Your task to perform on an android device: allow cookies in the chrome app Image 0: 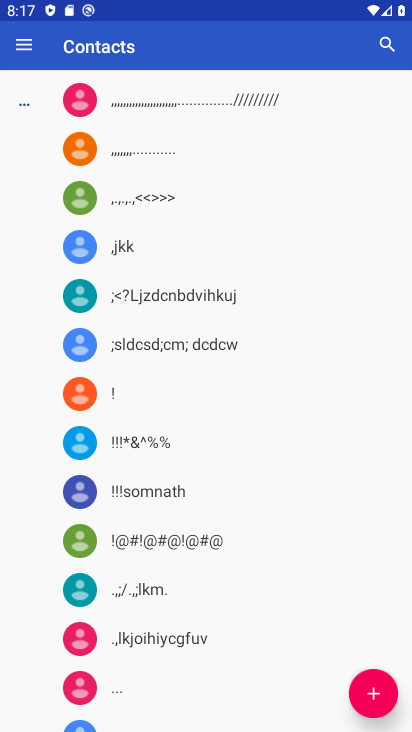
Step 0: press home button
Your task to perform on an android device: allow cookies in the chrome app Image 1: 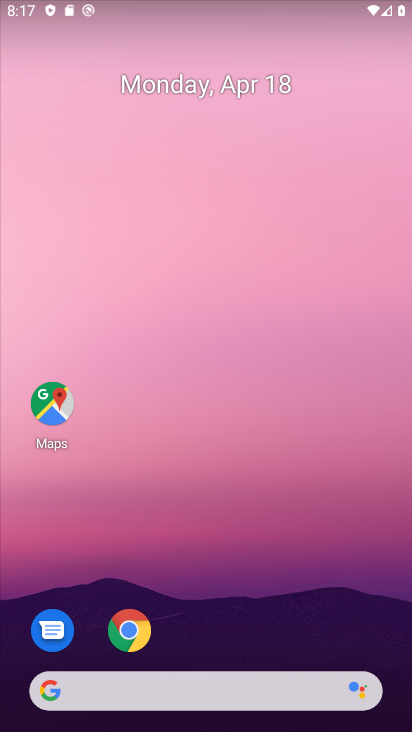
Step 1: click (128, 627)
Your task to perform on an android device: allow cookies in the chrome app Image 2: 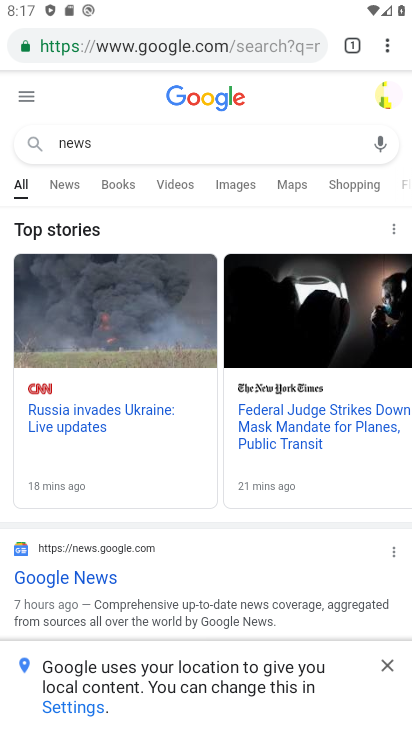
Step 2: click (387, 43)
Your task to perform on an android device: allow cookies in the chrome app Image 3: 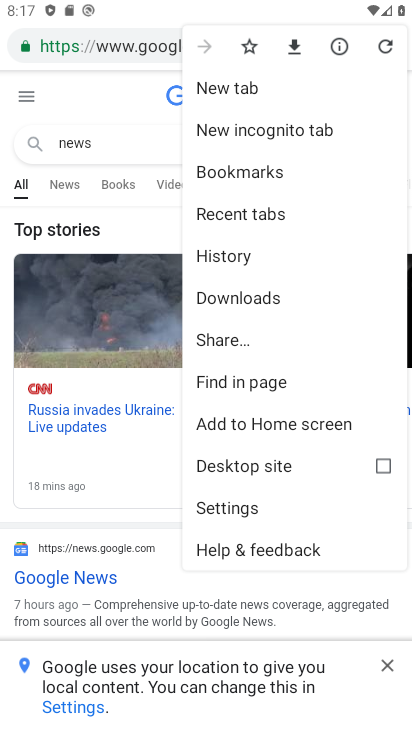
Step 3: click (217, 504)
Your task to perform on an android device: allow cookies in the chrome app Image 4: 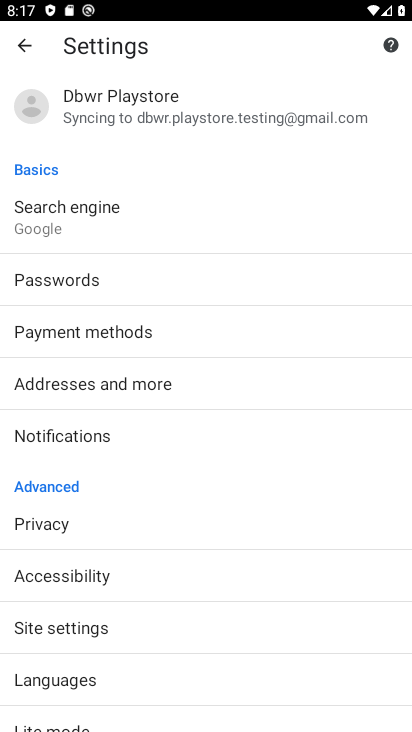
Step 4: click (90, 624)
Your task to perform on an android device: allow cookies in the chrome app Image 5: 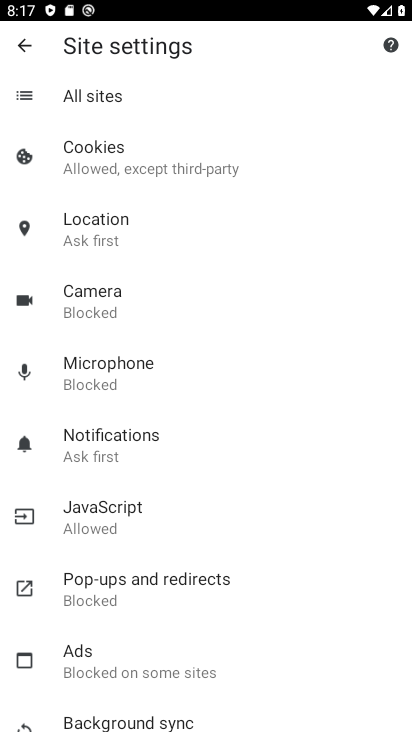
Step 5: click (123, 176)
Your task to perform on an android device: allow cookies in the chrome app Image 6: 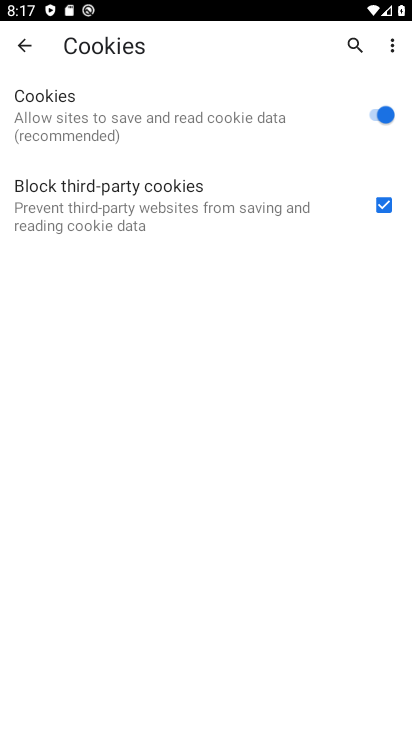
Step 6: task complete